Your task to perform on an android device: Open the map Image 0: 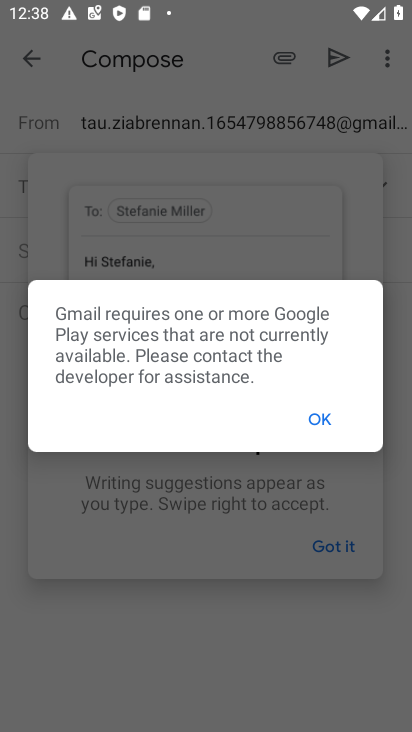
Step 0: press home button
Your task to perform on an android device: Open the map Image 1: 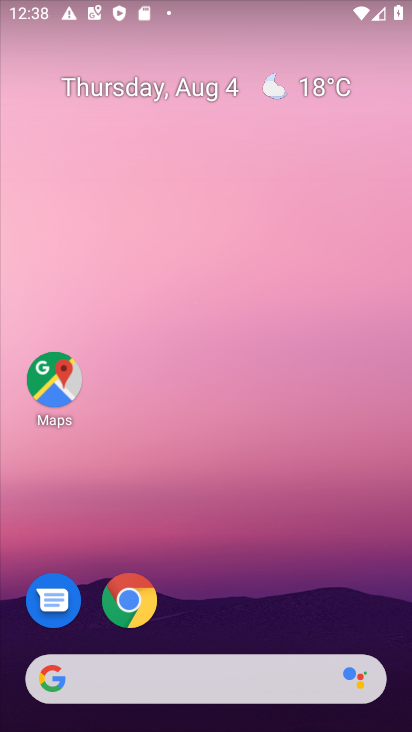
Step 1: click (53, 386)
Your task to perform on an android device: Open the map Image 2: 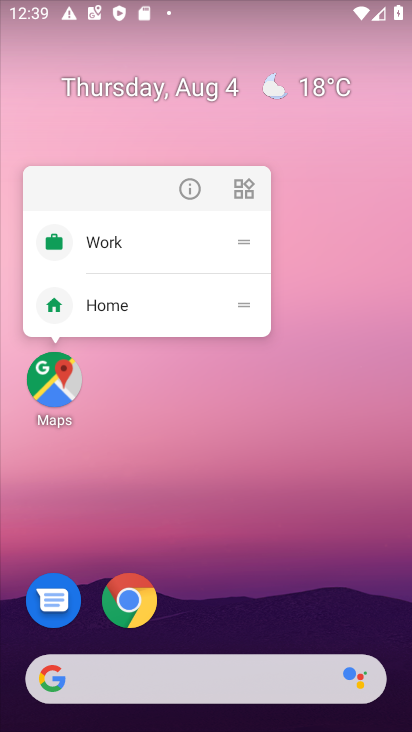
Step 2: click (59, 377)
Your task to perform on an android device: Open the map Image 3: 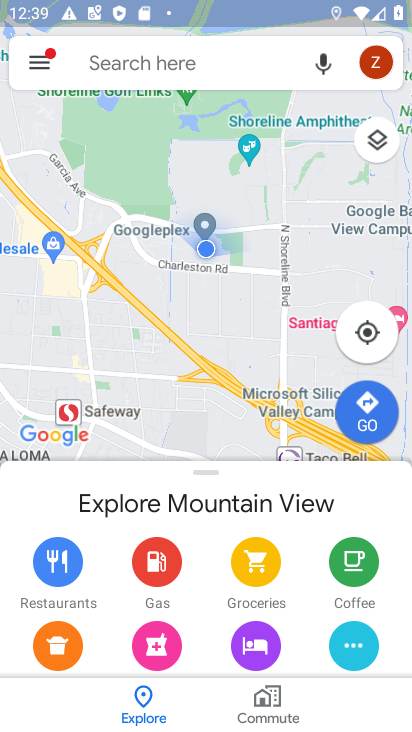
Step 3: task complete